Your task to perform on an android device: Open calendar and show me the first week of next month Image 0: 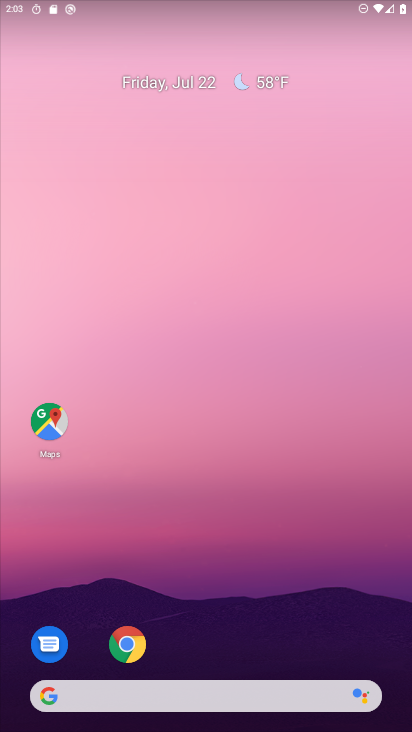
Step 0: drag from (217, 644) to (226, 143)
Your task to perform on an android device: Open calendar and show me the first week of next month Image 1: 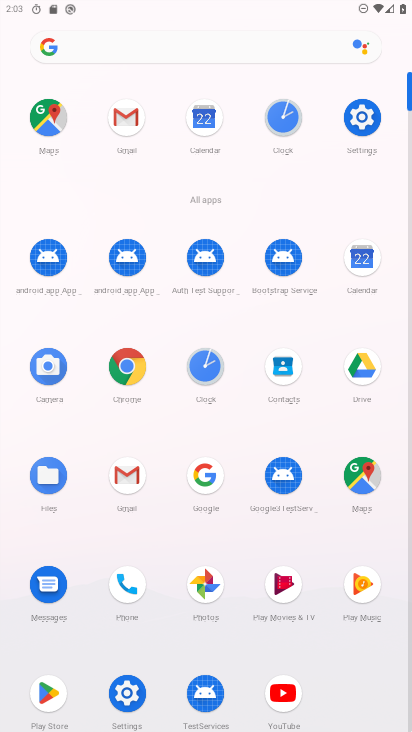
Step 1: click (348, 261)
Your task to perform on an android device: Open calendar and show me the first week of next month Image 2: 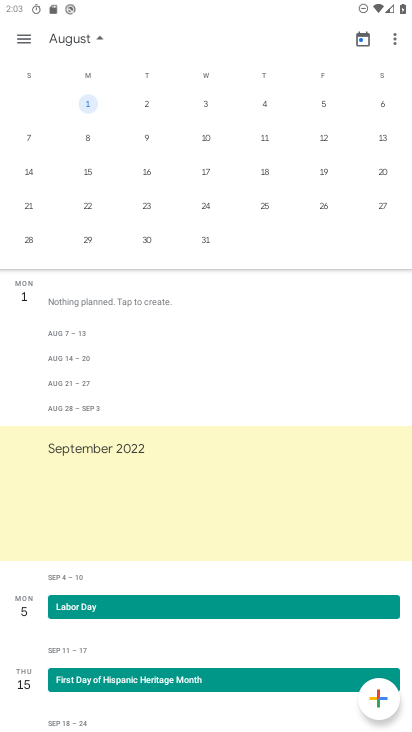
Step 2: task complete